Your task to perform on an android device: read, delete, or share a saved page in the chrome app Image 0: 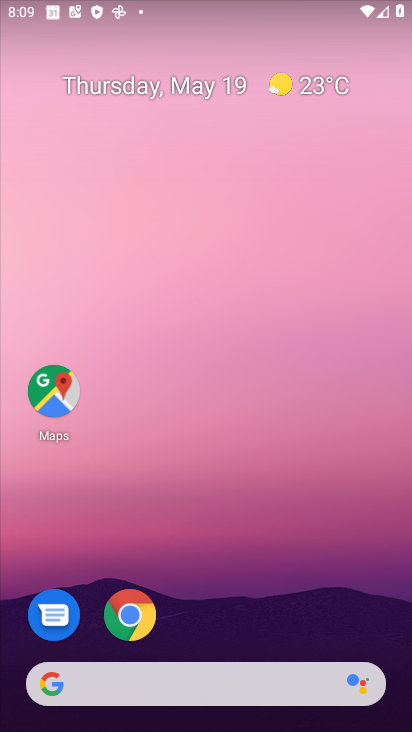
Step 0: drag from (310, 581) to (277, 80)
Your task to perform on an android device: read, delete, or share a saved page in the chrome app Image 1: 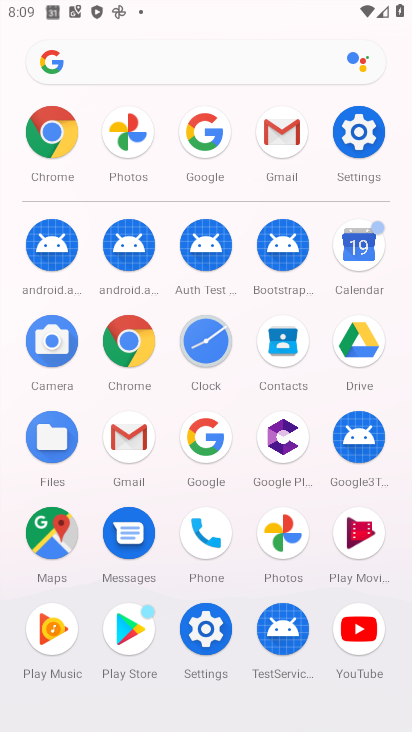
Step 1: click (56, 129)
Your task to perform on an android device: read, delete, or share a saved page in the chrome app Image 2: 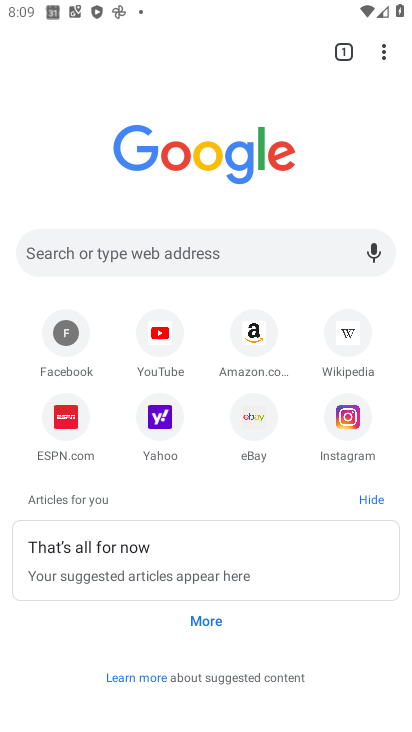
Step 2: task complete